Your task to perform on an android device: Search for macbook air on target, select the first entry, and add it to the cart. Image 0: 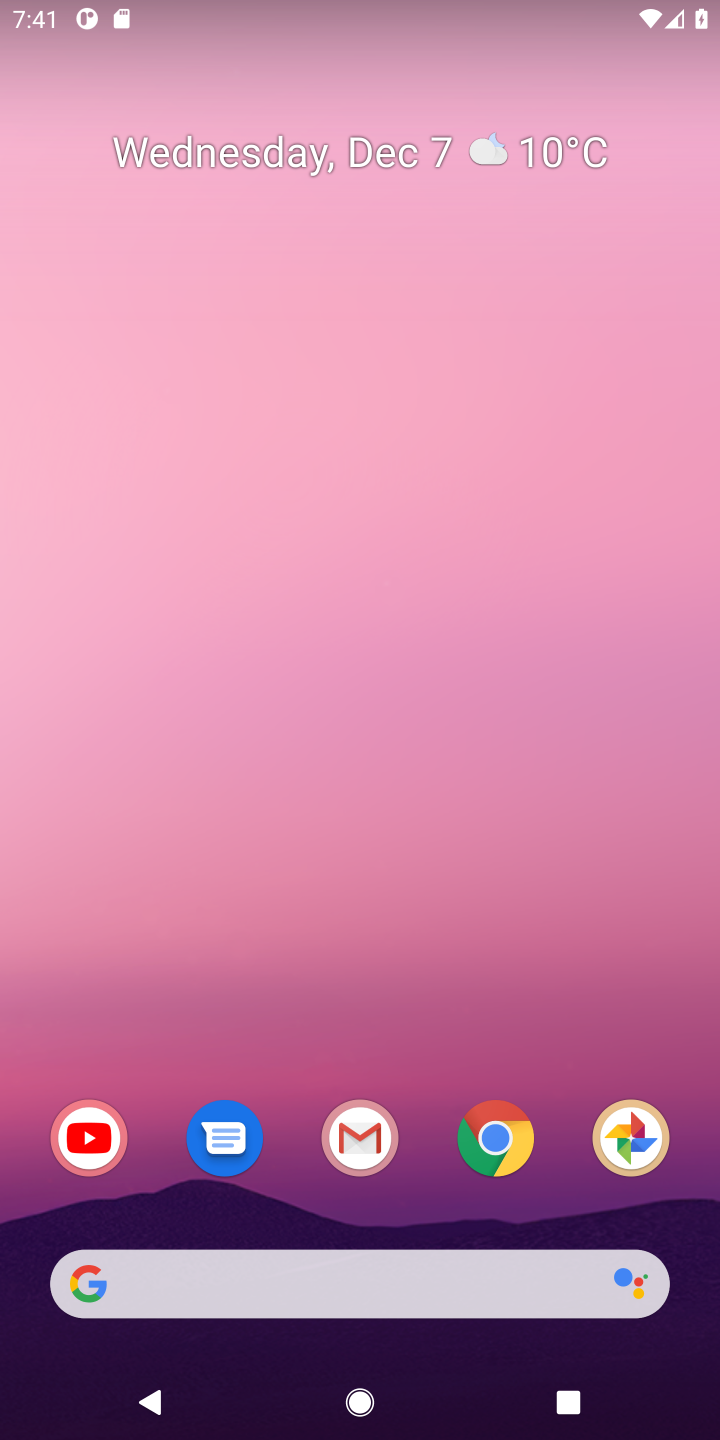
Step 0: press home button
Your task to perform on an android device: Search for macbook air on target, select the first entry, and add it to the cart. Image 1: 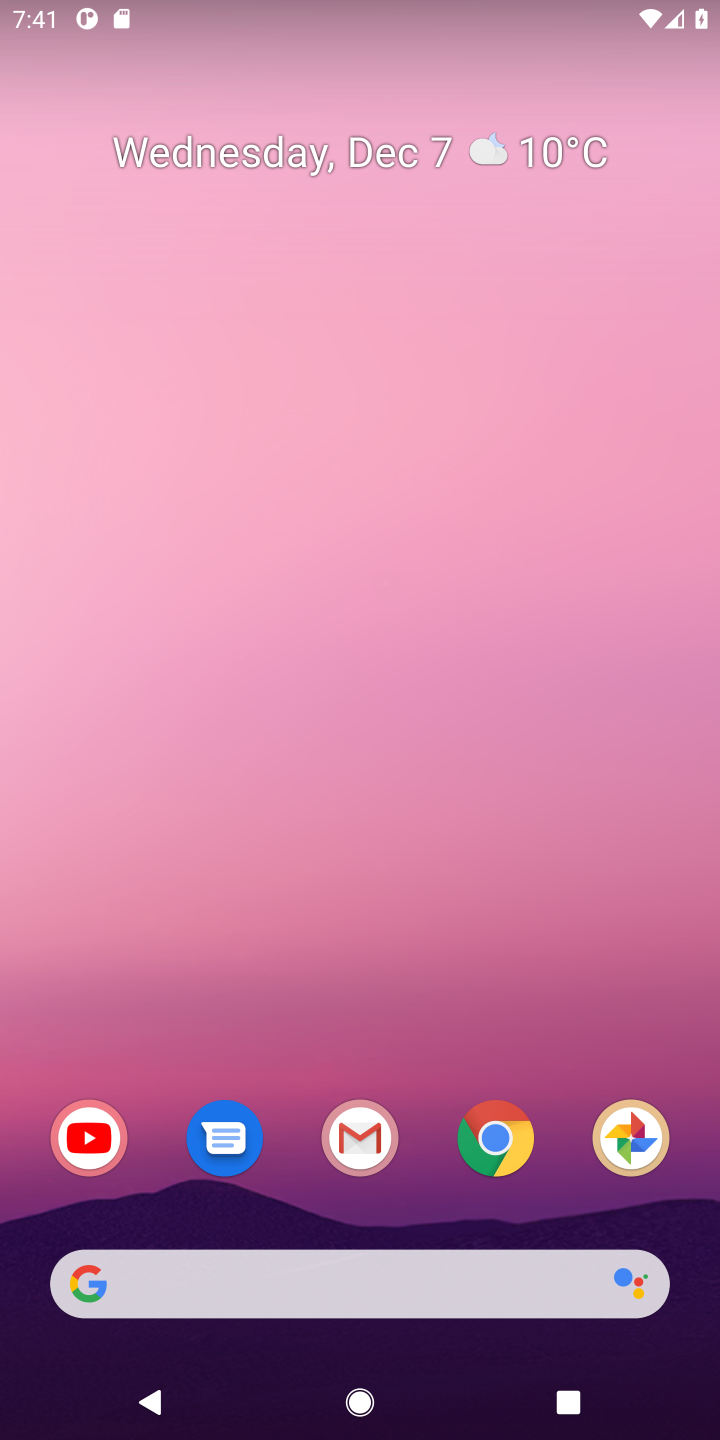
Step 1: click (160, 1282)
Your task to perform on an android device: Search for macbook air on target, select the first entry, and add it to the cart. Image 2: 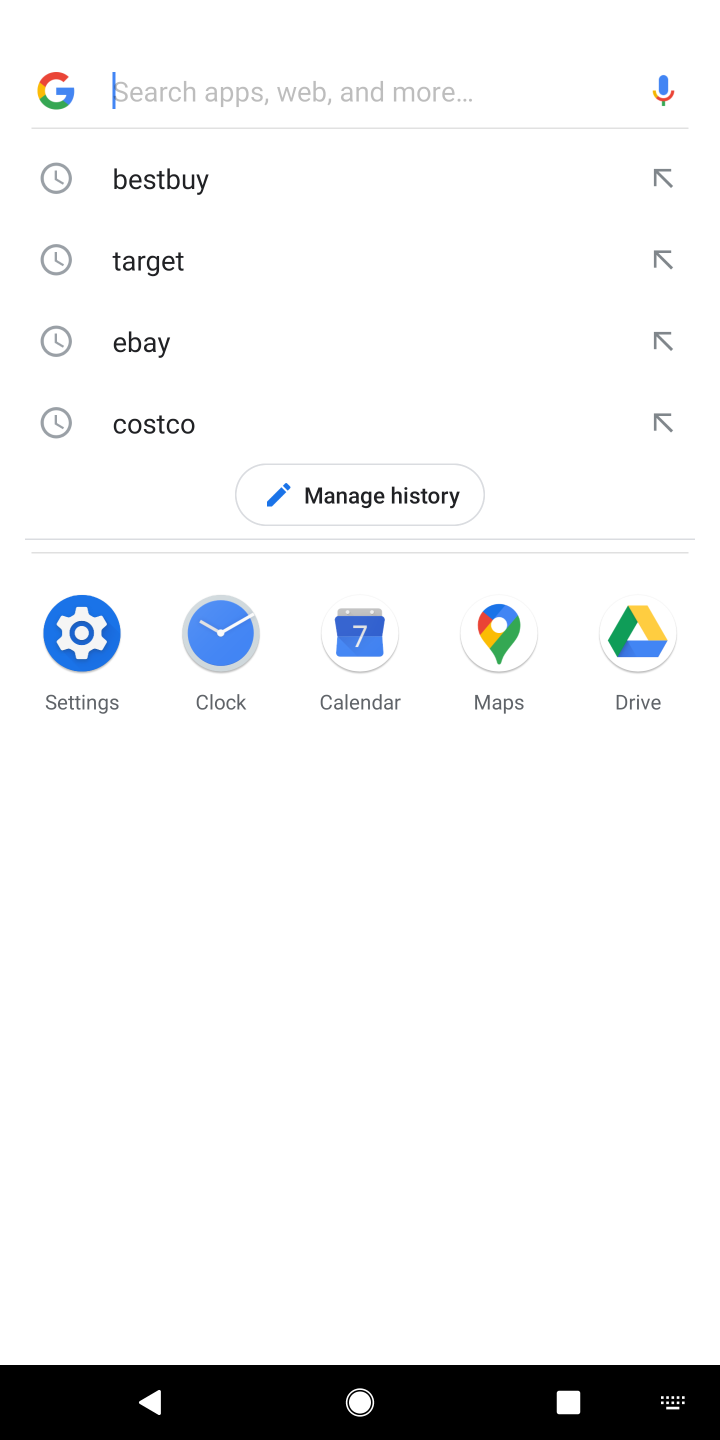
Step 2: type "target"
Your task to perform on an android device: Search for macbook air on target, select the first entry, and add it to the cart. Image 3: 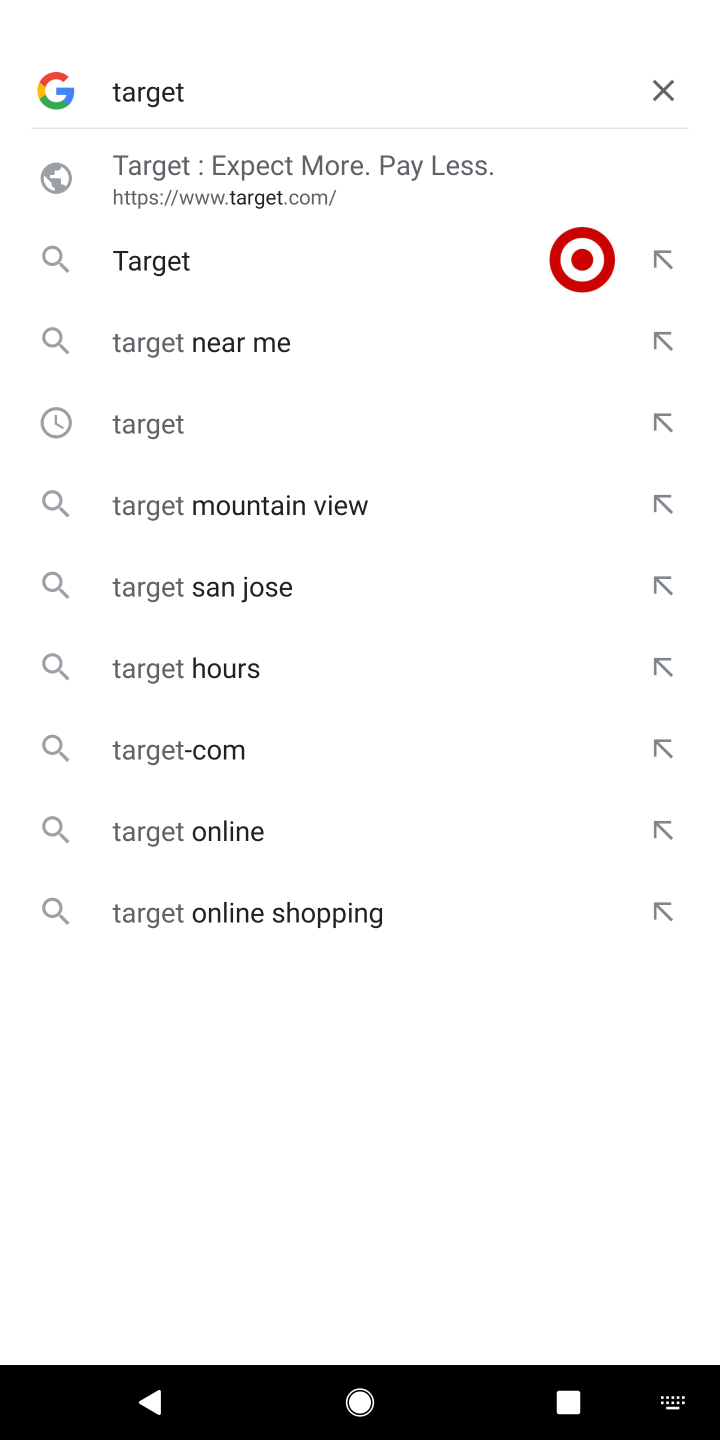
Step 3: press enter
Your task to perform on an android device: Search for macbook air on target, select the first entry, and add it to the cart. Image 4: 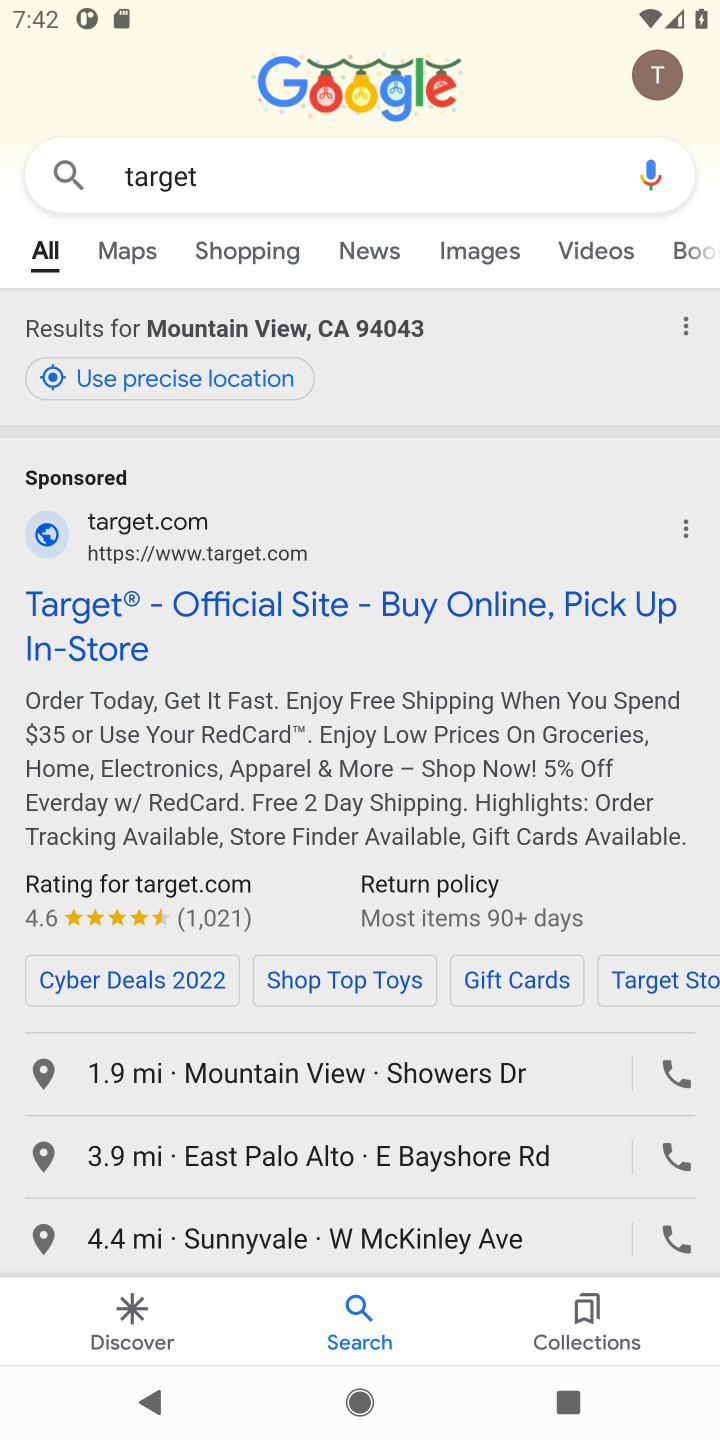
Step 4: click (249, 603)
Your task to perform on an android device: Search for macbook air on target, select the first entry, and add it to the cart. Image 5: 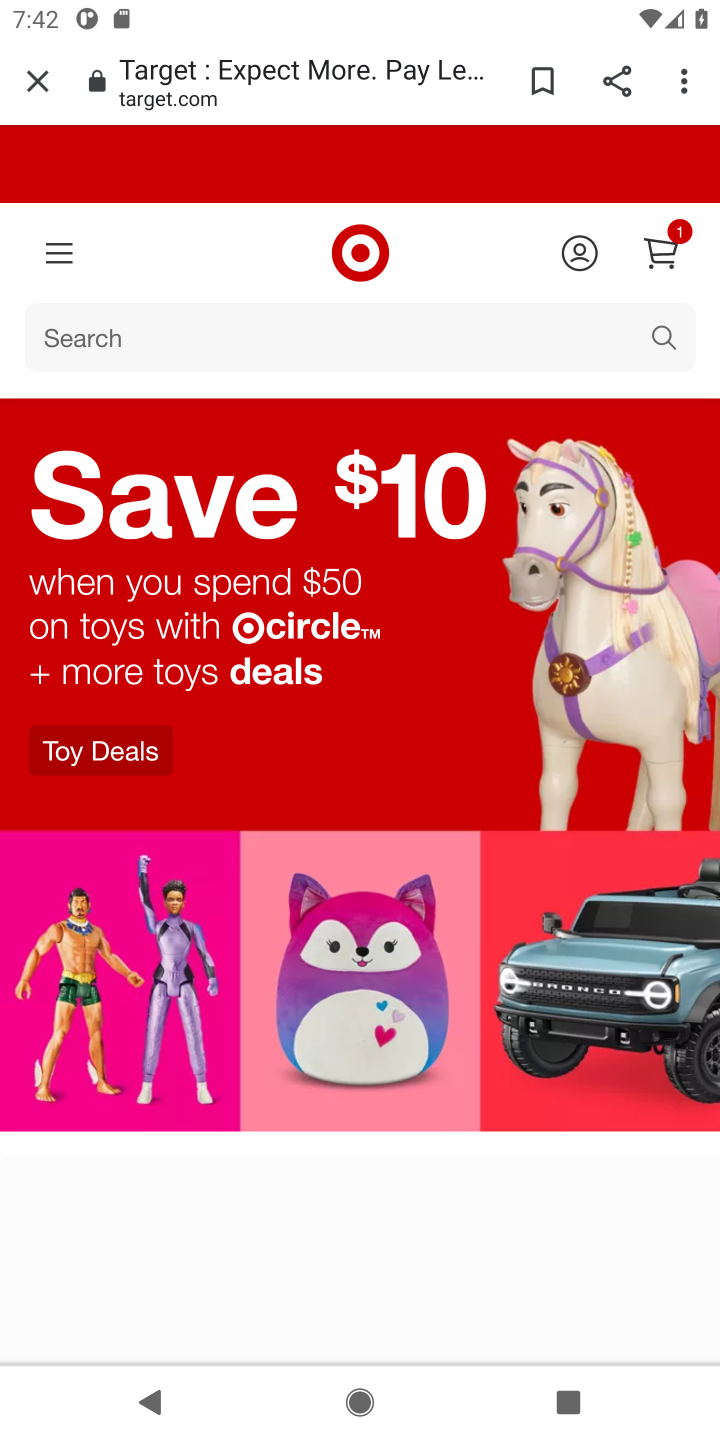
Step 5: click (145, 334)
Your task to perform on an android device: Search for macbook air on target, select the first entry, and add it to the cart. Image 6: 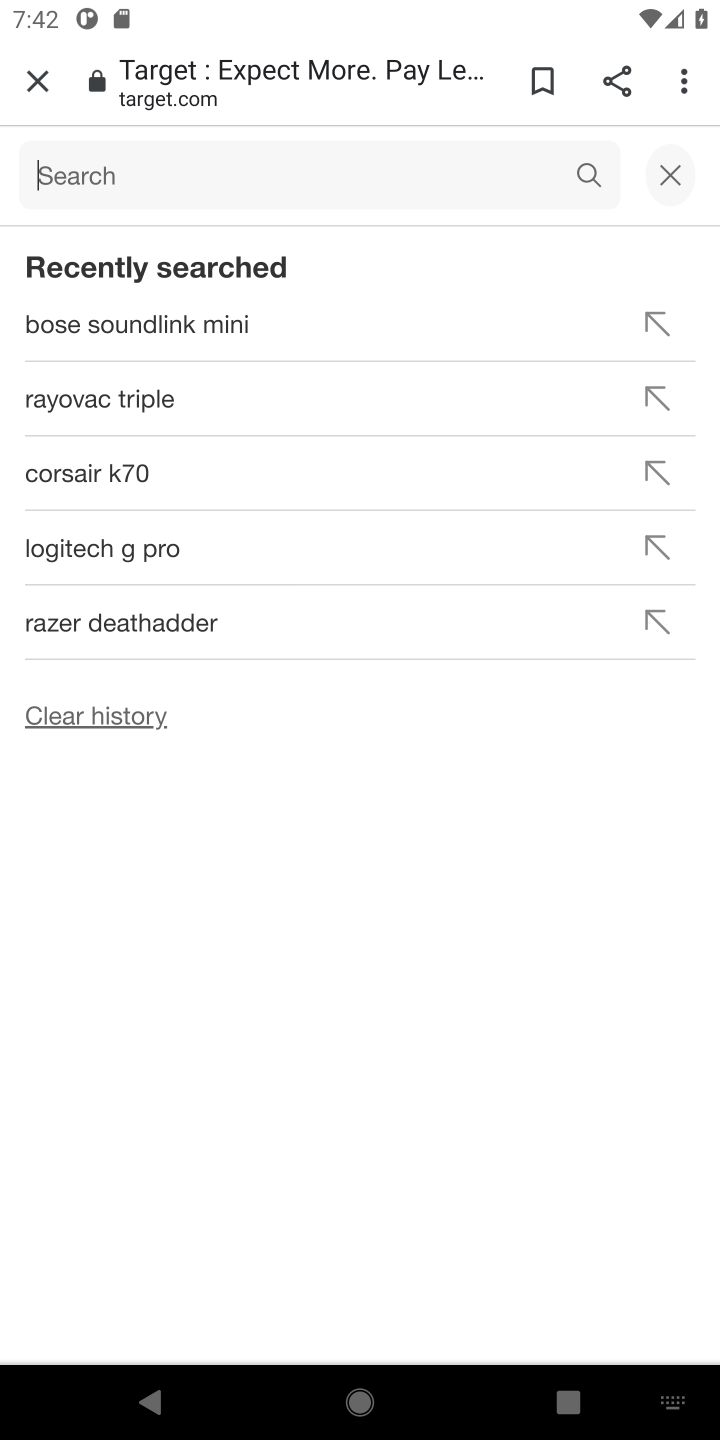
Step 6: type "macbook air "
Your task to perform on an android device: Search for macbook air on target, select the first entry, and add it to the cart. Image 7: 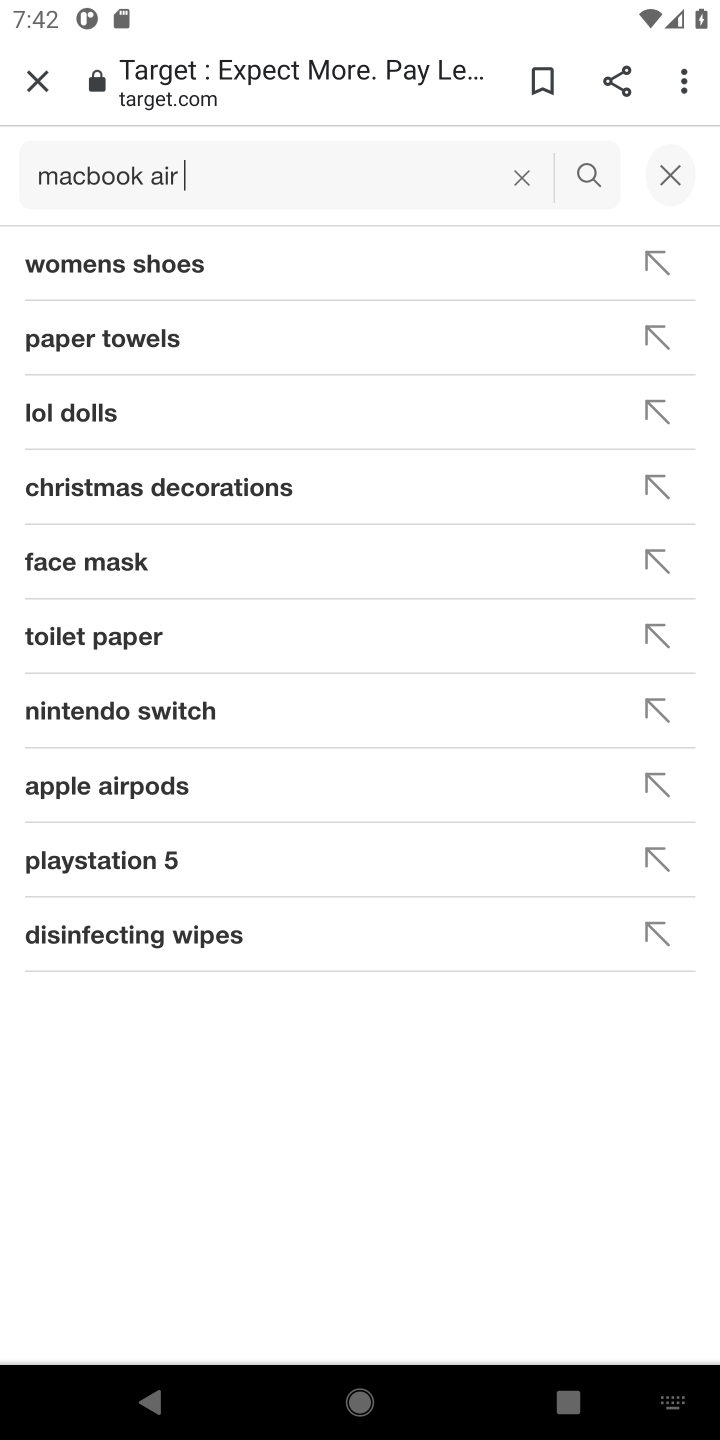
Step 7: press enter
Your task to perform on an android device: Search for macbook air on target, select the first entry, and add it to the cart. Image 8: 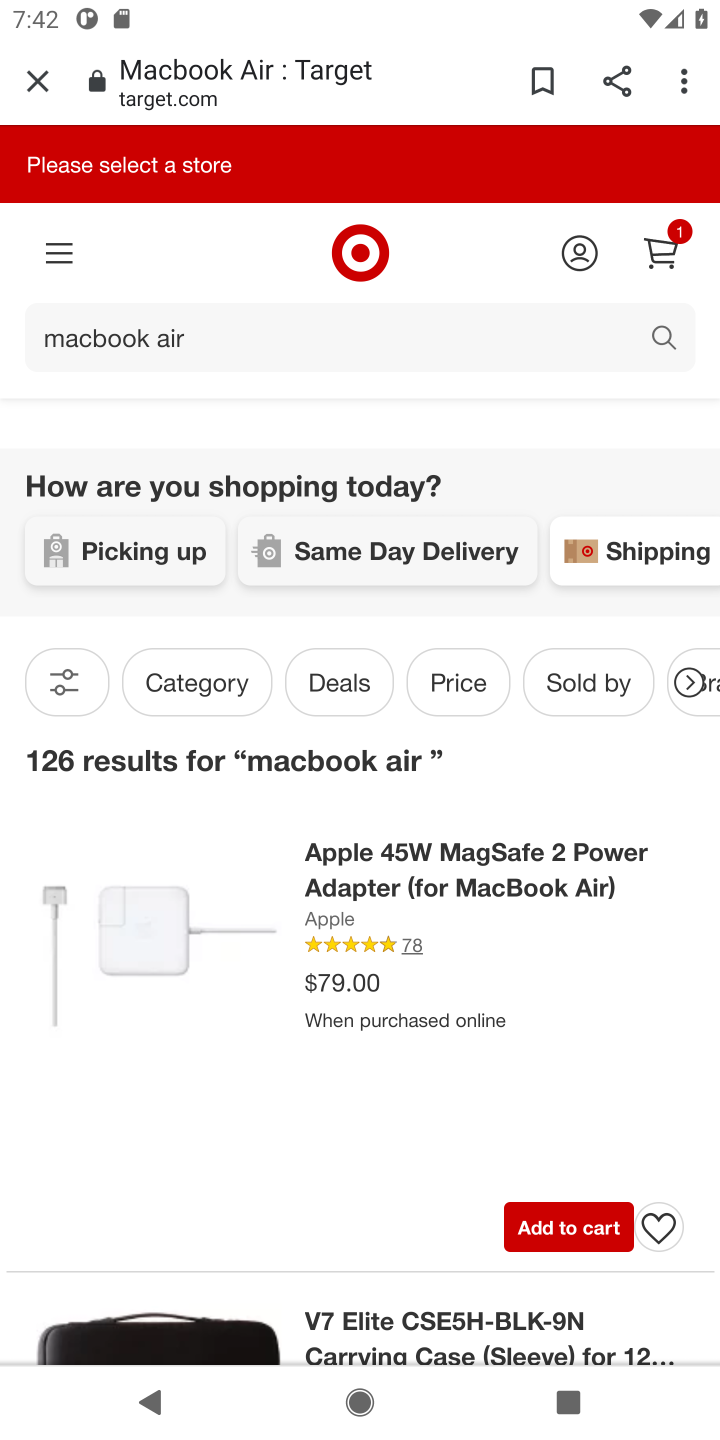
Step 8: task complete